Your task to perform on an android device: Is it going to rain today? Image 0: 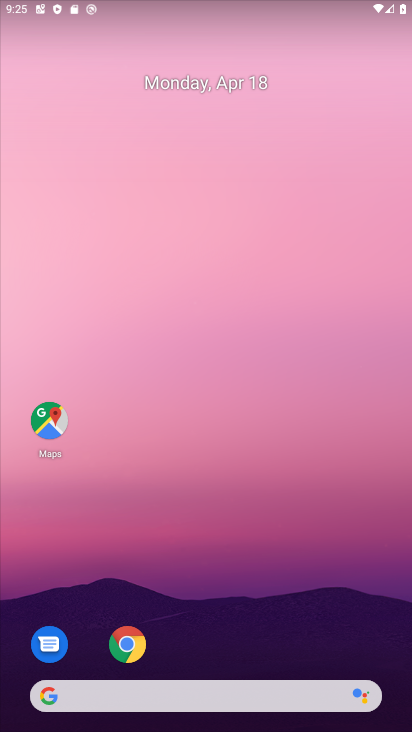
Step 0: click (223, 82)
Your task to perform on an android device: Is it going to rain today? Image 1: 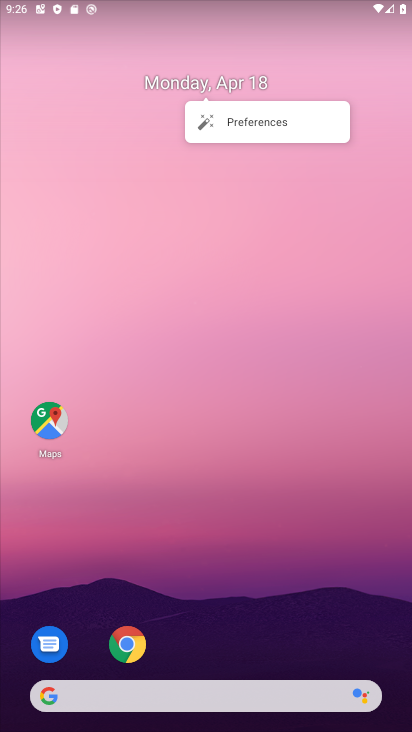
Step 1: click (239, 121)
Your task to perform on an android device: Is it going to rain today? Image 2: 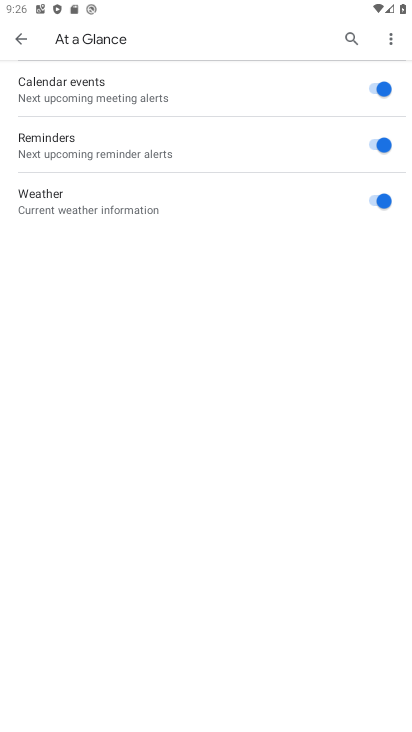
Step 2: drag from (43, 209) to (53, 286)
Your task to perform on an android device: Is it going to rain today? Image 3: 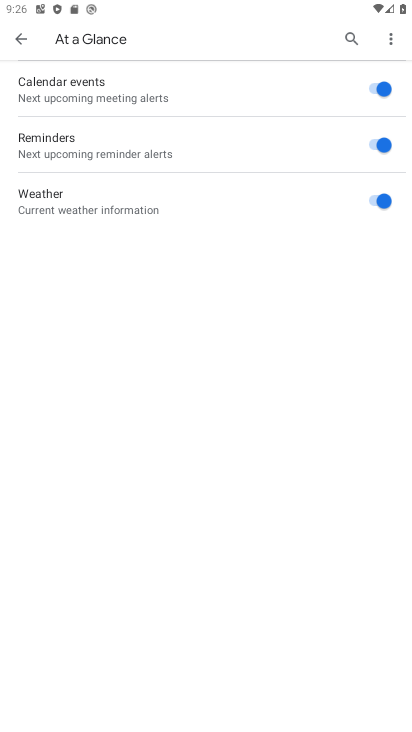
Step 3: click (389, 36)
Your task to perform on an android device: Is it going to rain today? Image 4: 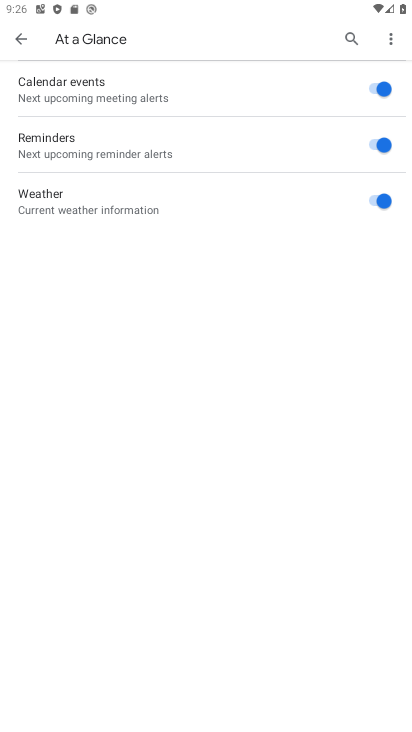
Step 4: click (389, 43)
Your task to perform on an android device: Is it going to rain today? Image 5: 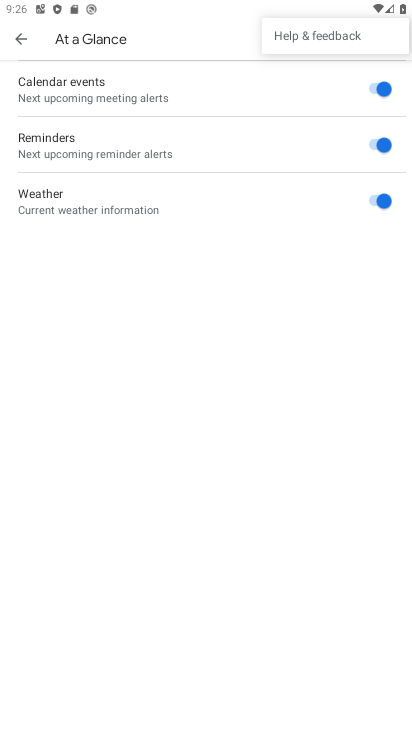
Step 5: click (389, 43)
Your task to perform on an android device: Is it going to rain today? Image 6: 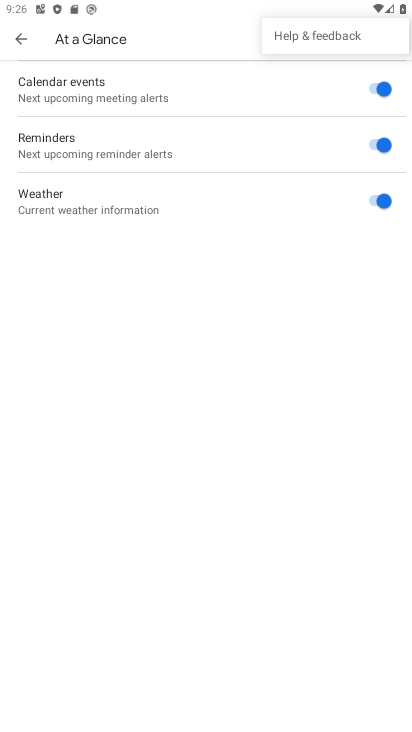
Step 6: click (22, 30)
Your task to perform on an android device: Is it going to rain today? Image 7: 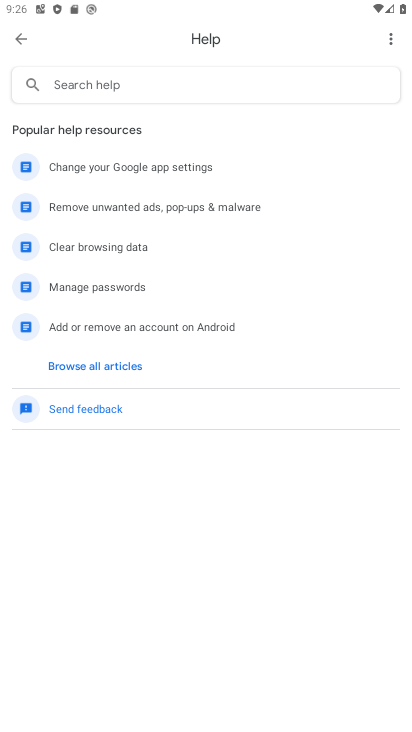
Step 7: press home button
Your task to perform on an android device: Is it going to rain today? Image 8: 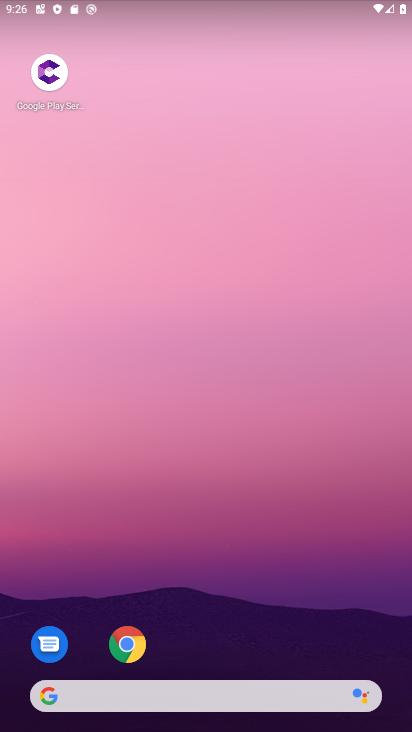
Step 8: click (163, 688)
Your task to perform on an android device: Is it going to rain today? Image 9: 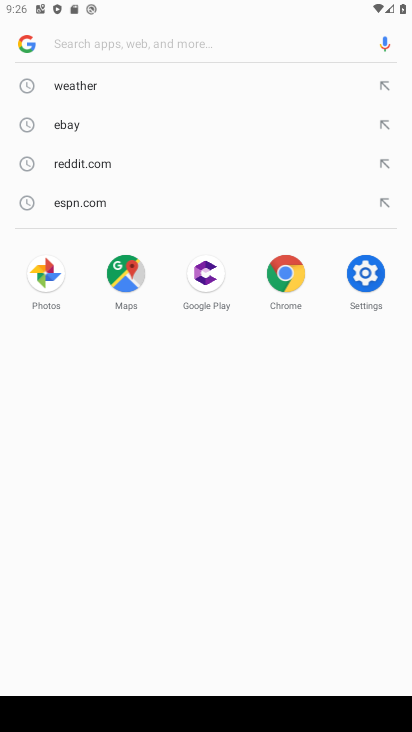
Step 9: click (69, 87)
Your task to perform on an android device: Is it going to rain today? Image 10: 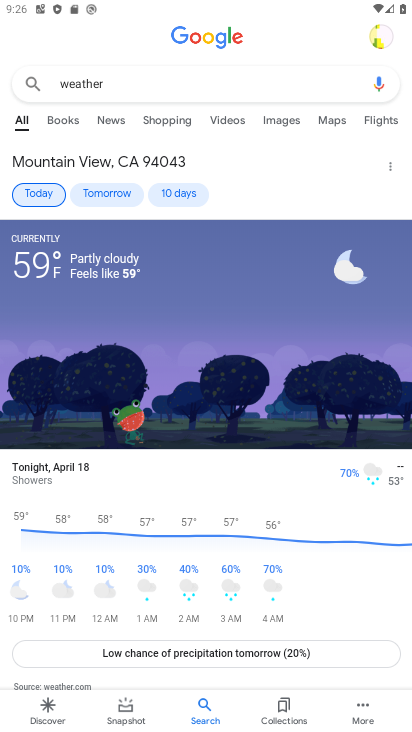
Step 10: task complete